Your task to perform on an android device: toggle data saver in the chrome app Image 0: 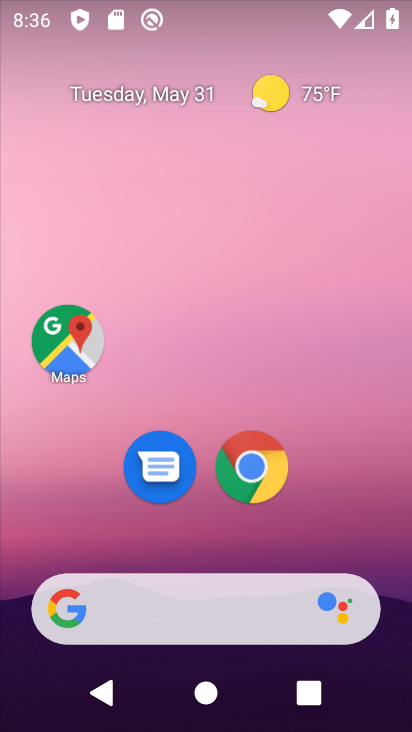
Step 0: click (334, 469)
Your task to perform on an android device: toggle data saver in the chrome app Image 1: 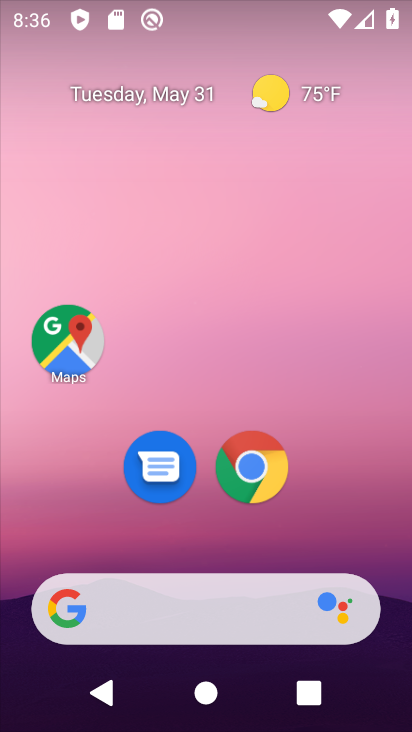
Step 1: drag from (227, 537) to (271, 207)
Your task to perform on an android device: toggle data saver in the chrome app Image 2: 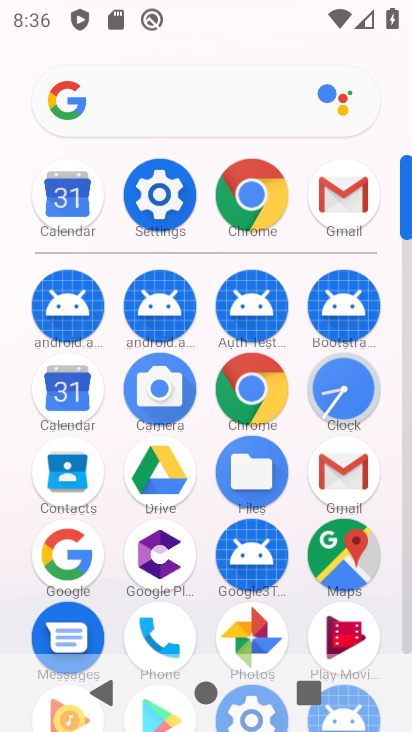
Step 2: click (247, 387)
Your task to perform on an android device: toggle data saver in the chrome app Image 3: 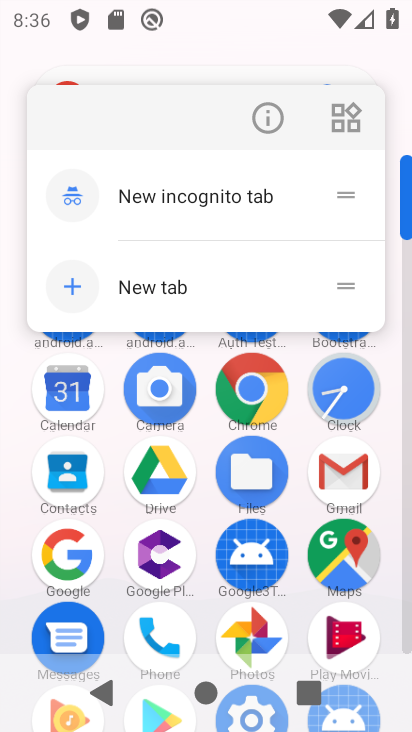
Step 3: click (268, 115)
Your task to perform on an android device: toggle data saver in the chrome app Image 4: 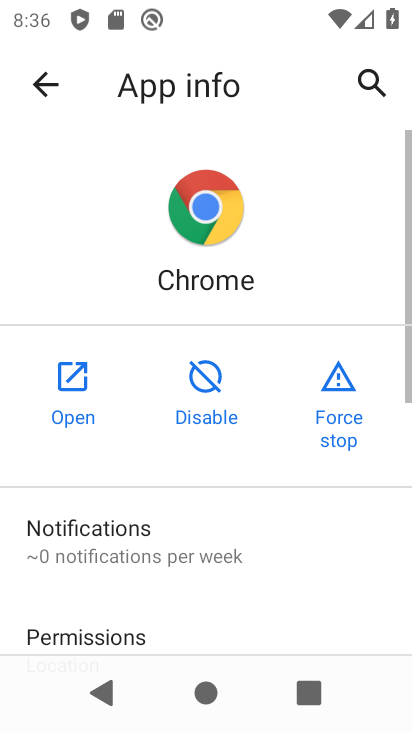
Step 4: click (60, 388)
Your task to perform on an android device: toggle data saver in the chrome app Image 5: 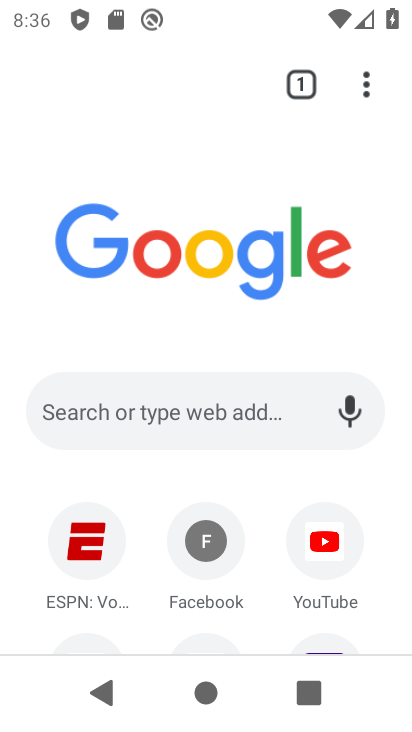
Step 5: drag from (365, 87) to (86, 524)
Your task to perform on an android device: toggle data saver in the chrome app Image 6: 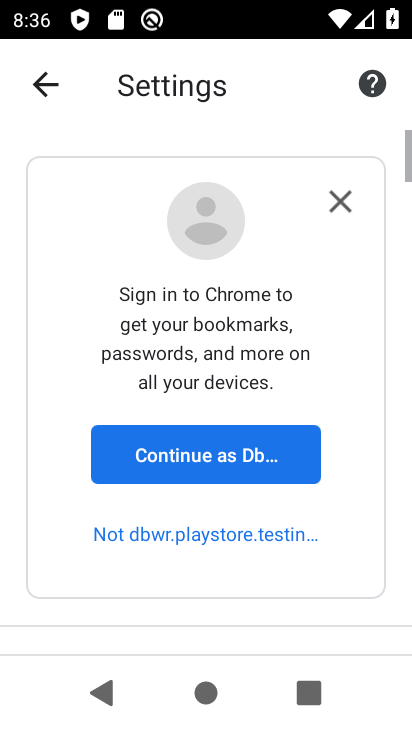
Step 6: click (348, 190)
Your task to perform on an android device: toggle data saver in the chrome app Image 7: 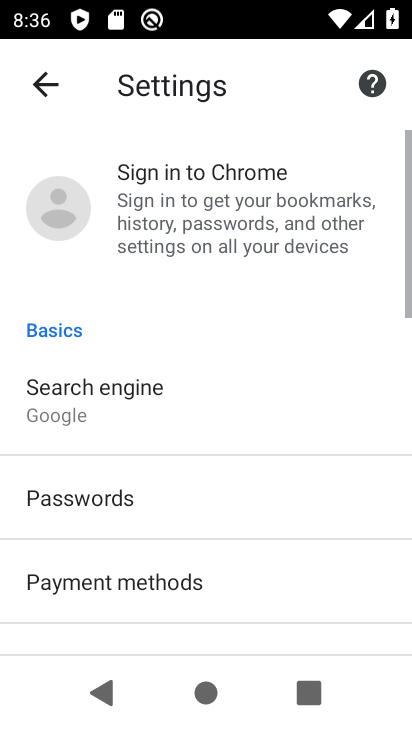
Step 7: drag from (231, 588) to (293, 98)
Your task to perform on an android device: toggle data saver in the chrome app Image 8: 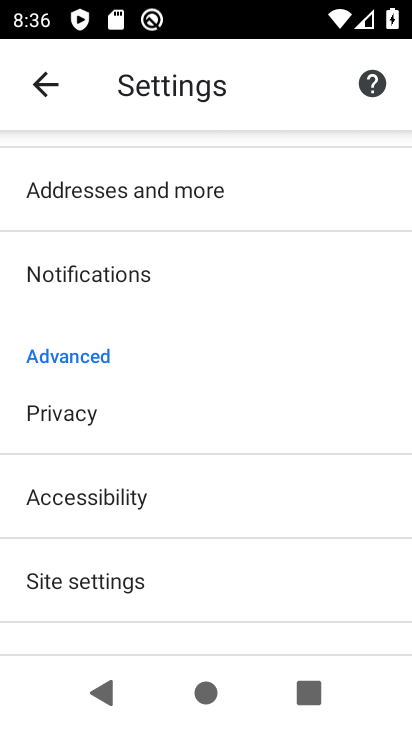
Step 8: drag from (186, 564) to (228, 153)
Your task to perform on an android device: toggle data saver in the chrome app Image 9: 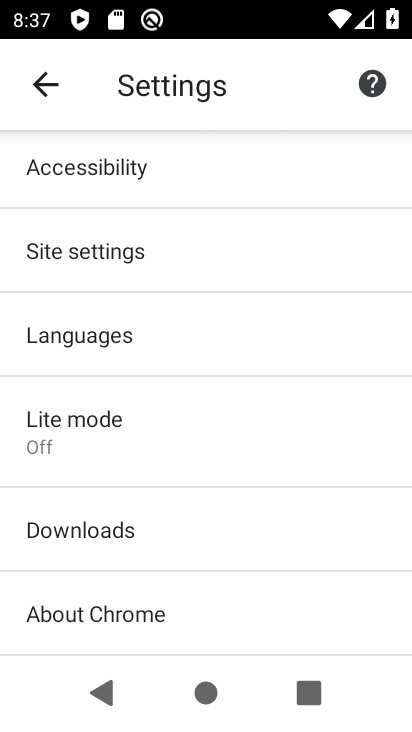
Step 9: click (137, 411)
Your task to perform on an android device: toggle data saver in the chrome app Image 10: 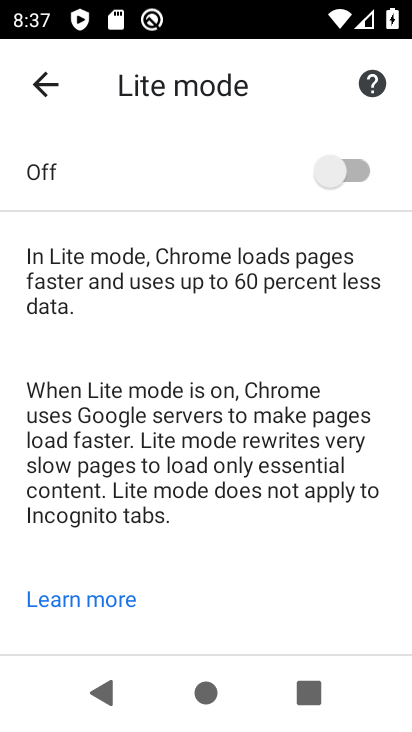
Step 10: click (340, 177)
Your task to perform on an android device: toggle data saver in the chrome app Image 11: 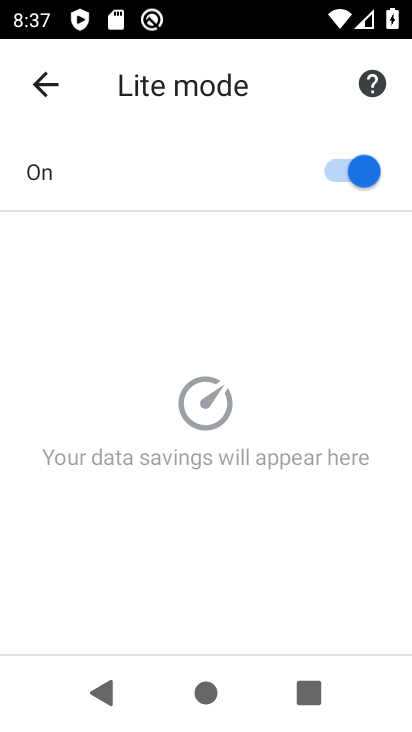
Step 11: task complete